Your task to perform on an android device: toggle wifi Image 0: 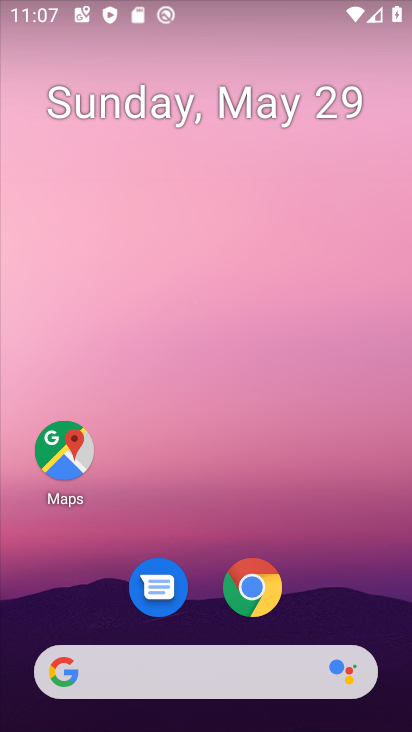
Step 0: drag from (357, 564) to (333, 140)
Your task to perform on an android device: toggle wifi Image 1: 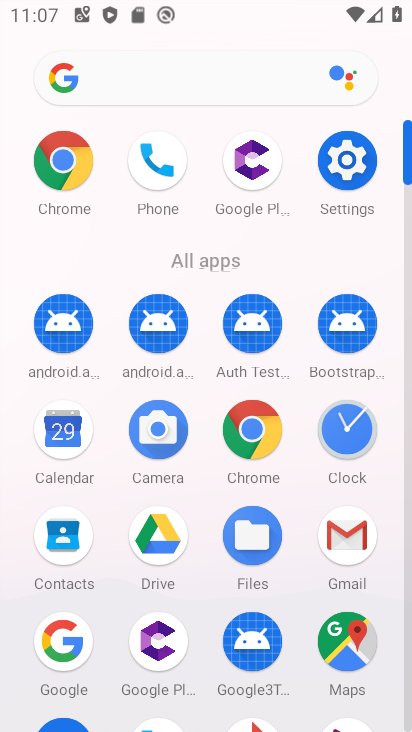
Step 1: click (352, 179)
Your task to perform on an android device: toggle wifi Image 2: 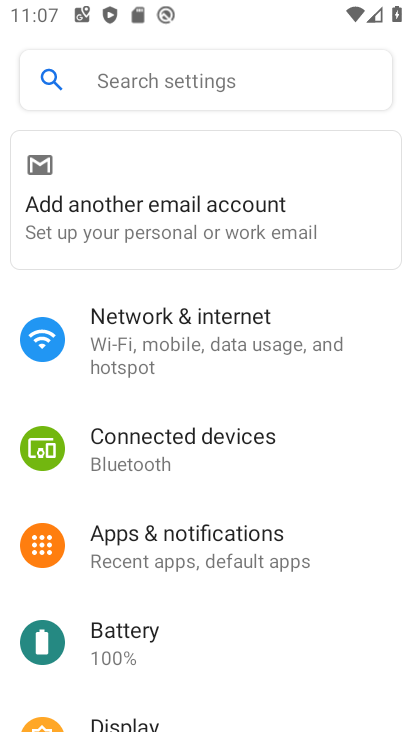
Step 2: click (175, 332)
Your task to perform on an android device: toggle wifi Image 3: 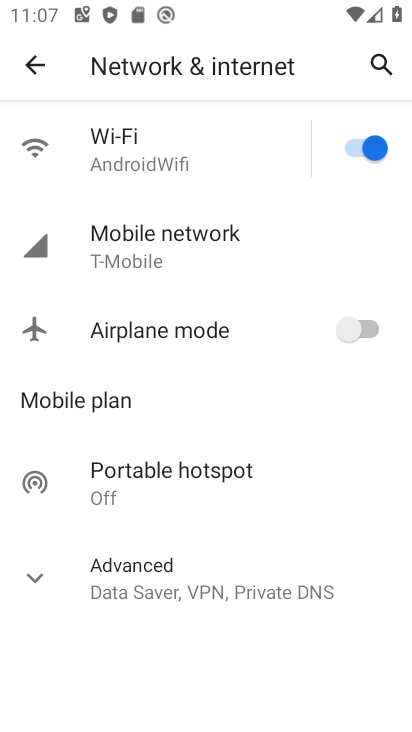
Step 3: click (365, 147)
Your task to perform on an android device: toggle wifi Image 4: 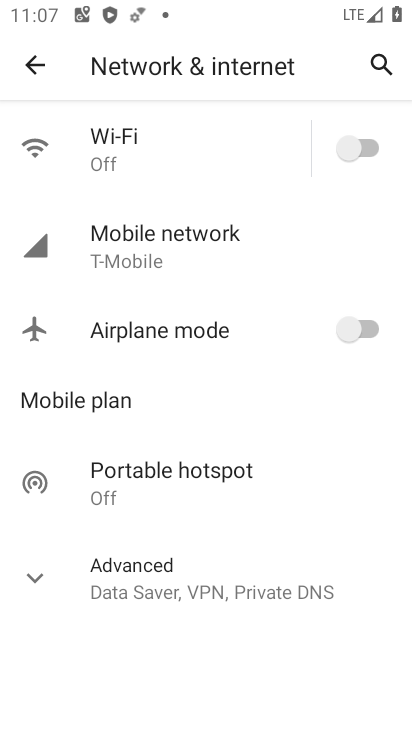
Step 4: task complete